Your task to perform on an android device: see creations saved in the google photos Image 0: 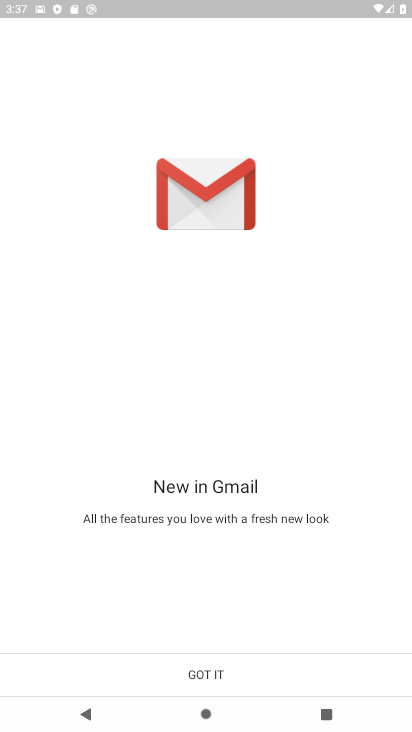
Step 0: click (200, 672)
Your task to perform on an android device: see creations saved in the google photos Image 1: 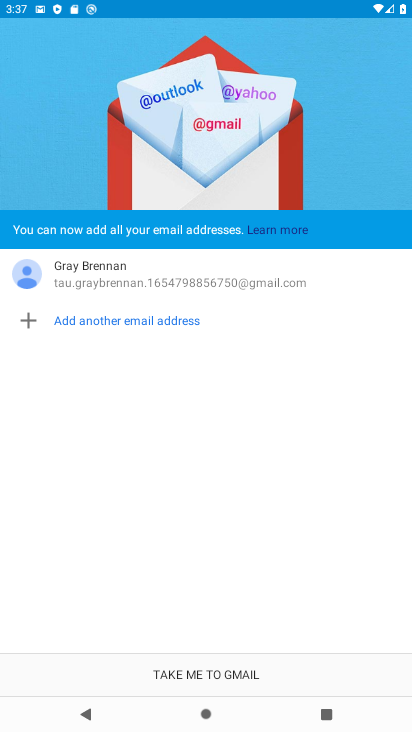
Step 1: click (200, 672)
Your task to perform on an android device: see creations saved in the google photos Image 2: 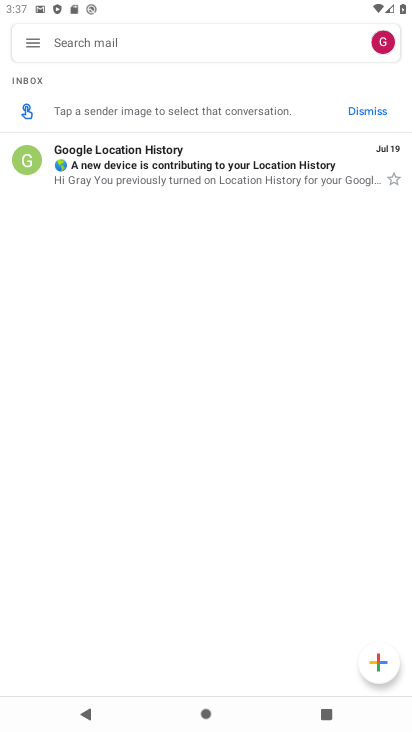
Step 2: press home button
Your task to perform on an android device: see creations saved in the google photos Image 3: 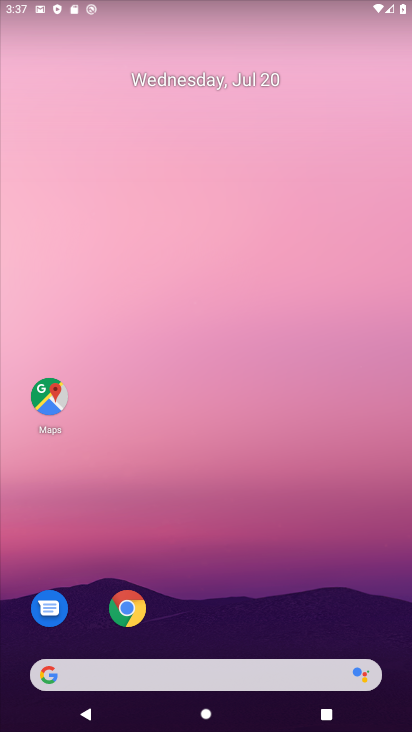
Step 3: drag from (210, 582) to (208, 193)
Your task to perform on an android device: see creations saved in the google photos Image 4: 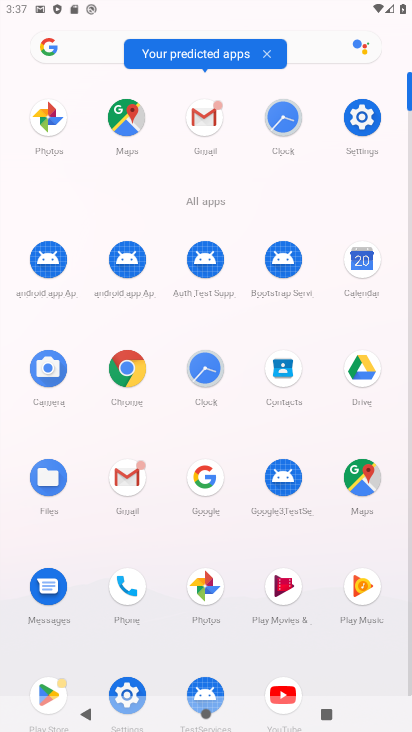
Step 4: click (207, 608)
Your task to perform on an android device: see creations saved in the google photos Image 5: 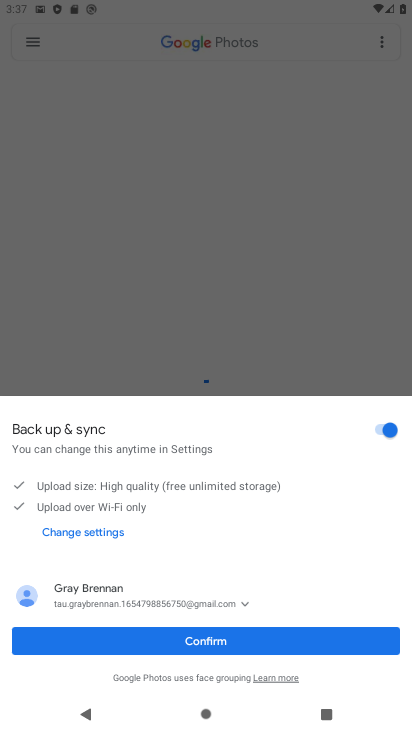
Step 5: click (211, 637)
Your task to perform on an android device: see creations saved in the google photos Image 6: 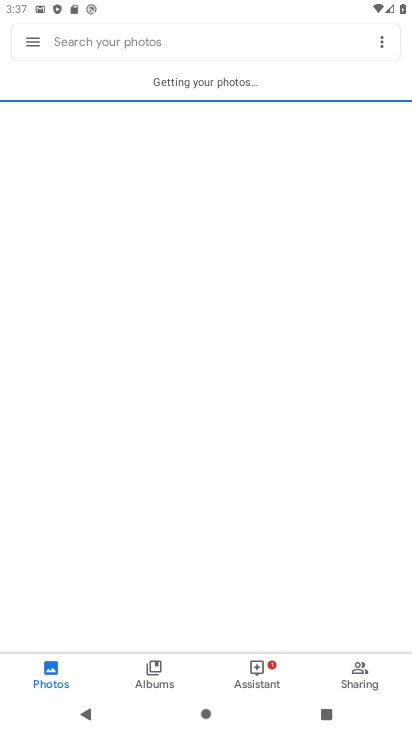
Step 6: click (124, 38)
Your task to perform on an android device: see creations saved in the google photos Image 7: 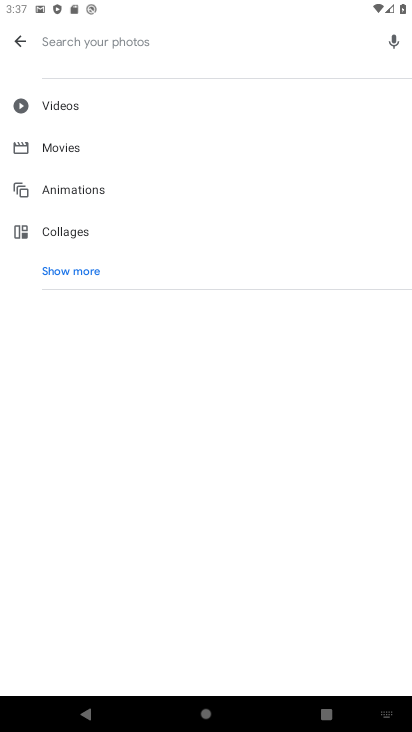
Step 7: click (53, 266)
Your task to perform on an android device: see creations saved in the google photos Image 8: 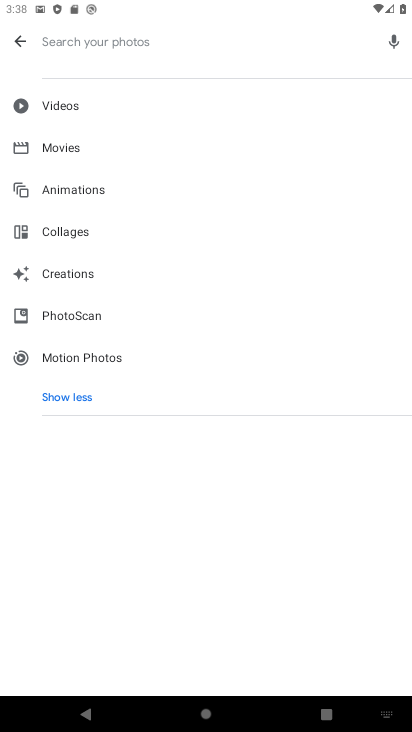
Step 8: click (61, 268)
Your task to perform on an android device: see creations saved in the google photos Image 9: 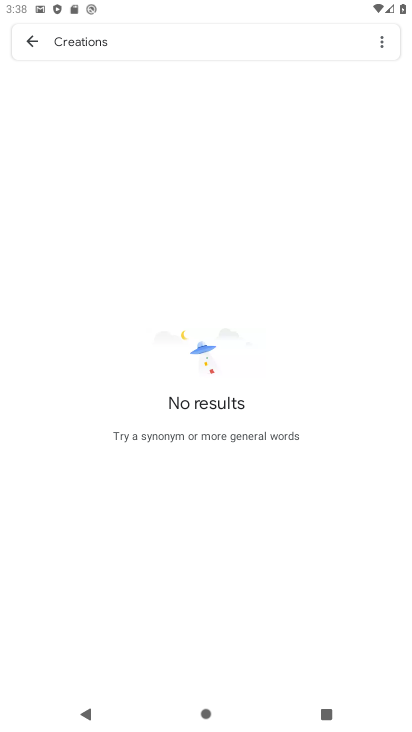
Step 9: task complete